Your task to perform on an android device: Go to Maps Image 0: 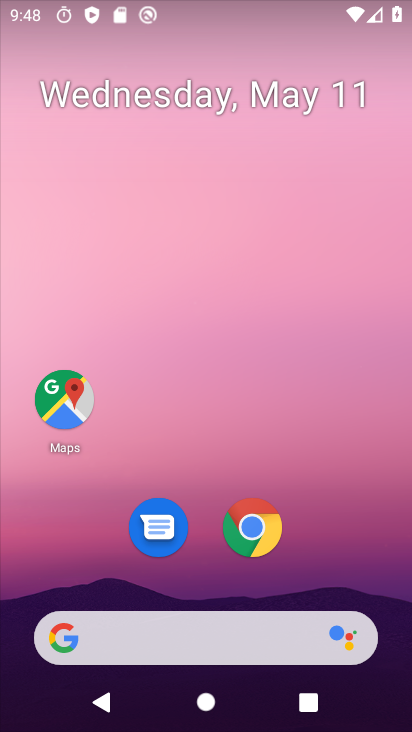
Step 0: drag from (253, 596) to (251, 129)
Your task to perform on an android device: Go to Maps Image 1: 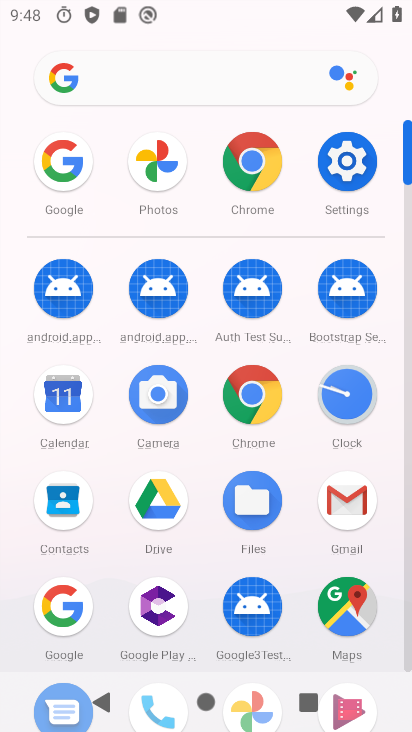
Step 1: click (358, 605)
Your task to perform on an android device: Go to Maps Image 2: 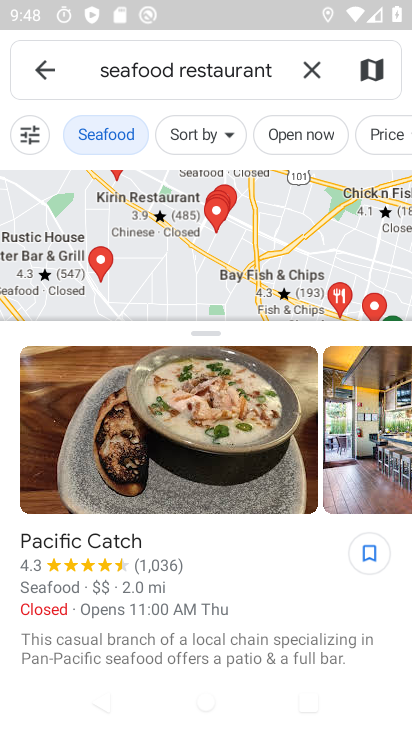
Step 2: task complete